Your task to perform on an android device: What's on my calendar tomorrow? Image 0: 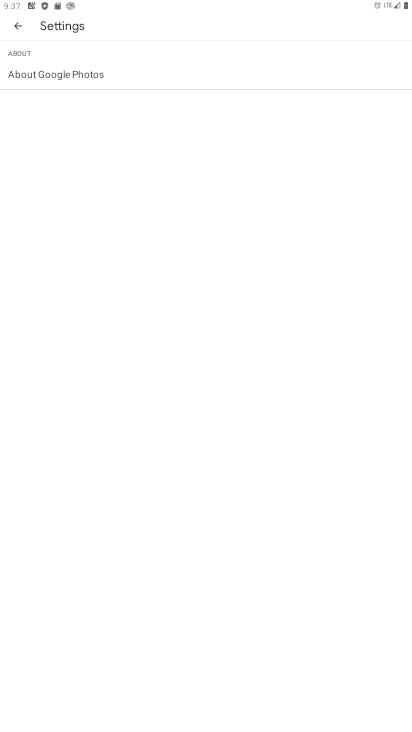
Step 0: press home button
Your task to perform on an android device: What's on my calendar tomorrow? Image 1: 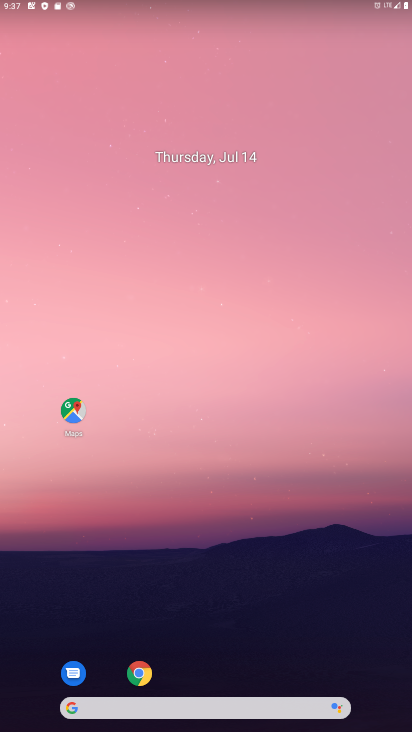
Step 1: drag from (192, 702) to (220, 276)
Your task to perform on an android device: What's on my calendar tomorrow? Image 2: 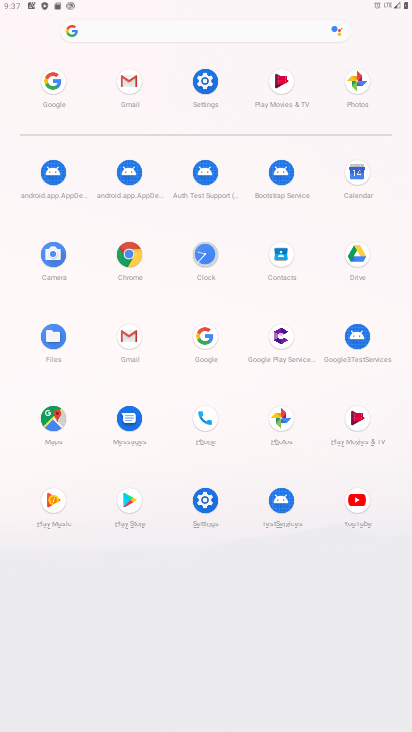
Step 2: click (354, 177)
Your task to perform on an android device: What's on my calendar tomorrow? Image 3: 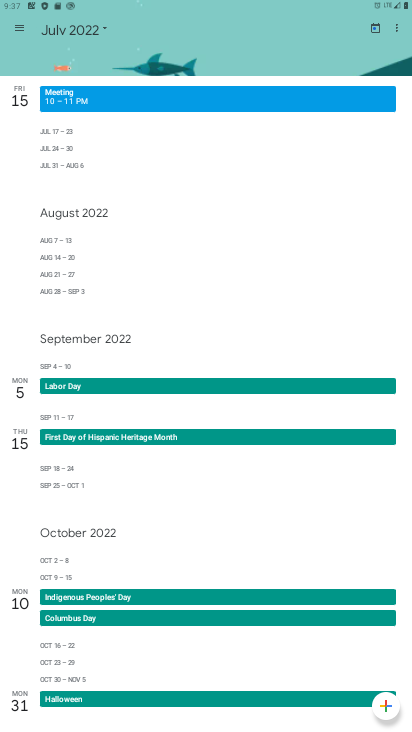
Step 3: click (379, 30)
Your task to perform on an android device: What's on my calendar tomorrow? Image 4: 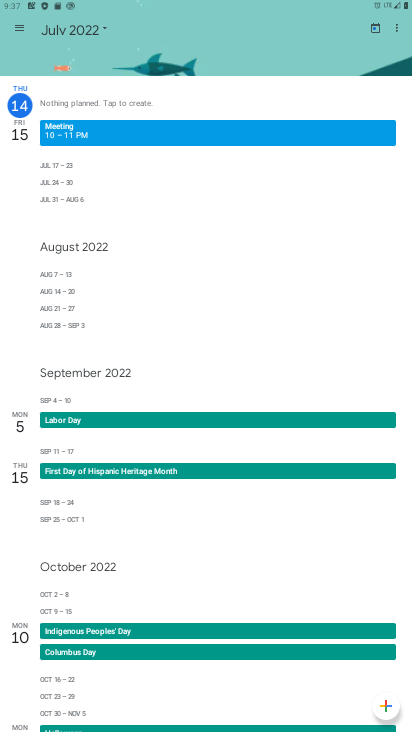
Step 4: click (105, 32)
Your task to perform on an android device: What's on my calendar tomorrow? Image 5: 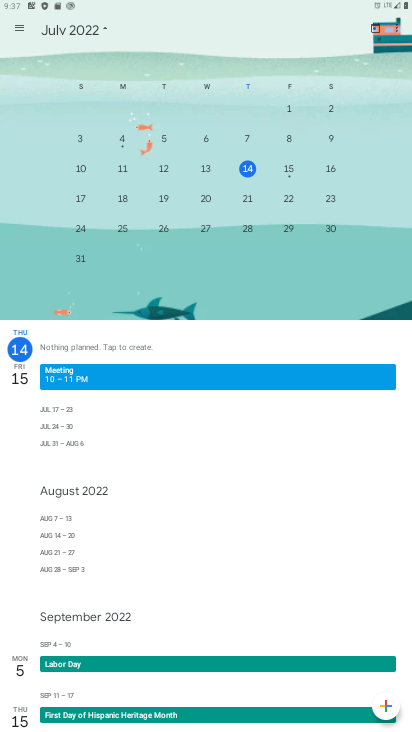
Step 5: click (285, 171)
Your task to perform on an android device: What's on my calendar tomorrow? Image 6: 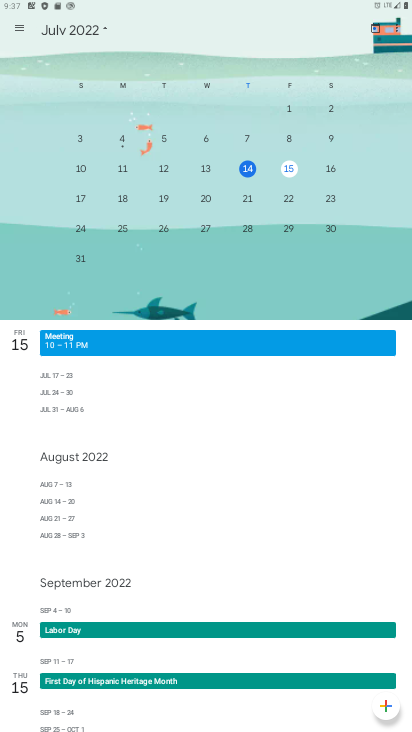
Step 6: click (19, 28)
Your task to perform on an android device: What's on my calendar tomorrow? Image 7: 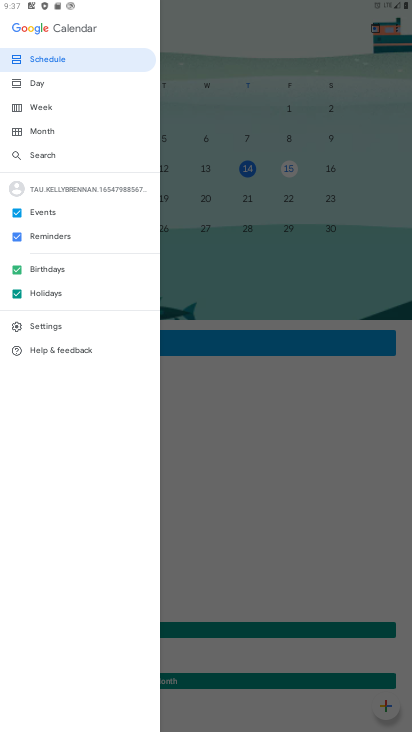
Step 7: click (30, 55)
Your task to perform on an android device: What's on my calendar tomorrow? Image 8: 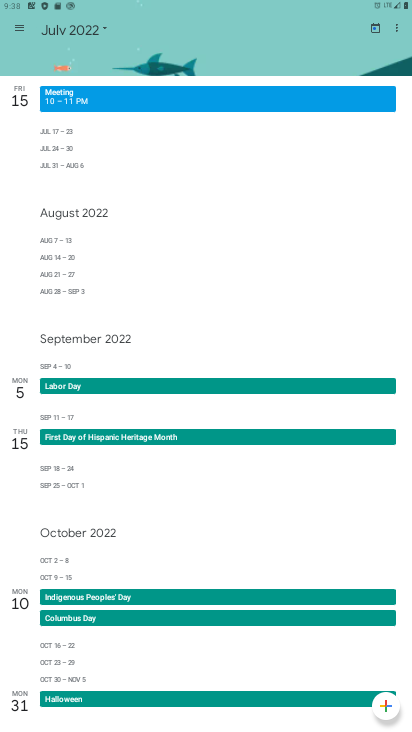
Step 8: task complete